Your task to perform on an android device: Search for apple airpods pro on ebay, select the first entry, add it to the cart, then select checkout. Image 0: 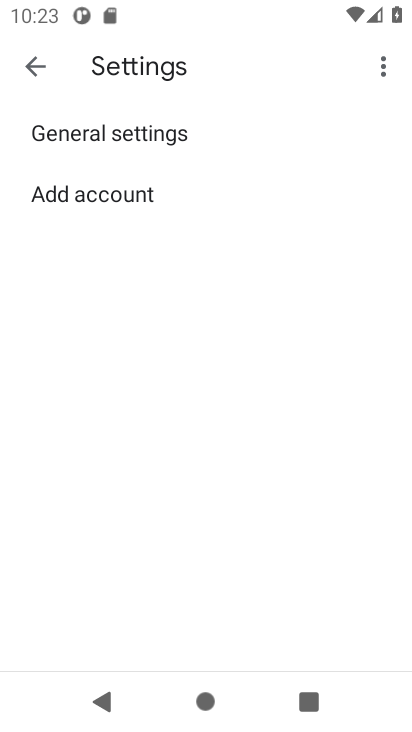
Step 0: press home button
Your task to perform on an android device: Search for apple airpods pro on ebay, select the first entry, add it to the cart, then select checkout. Image 1: 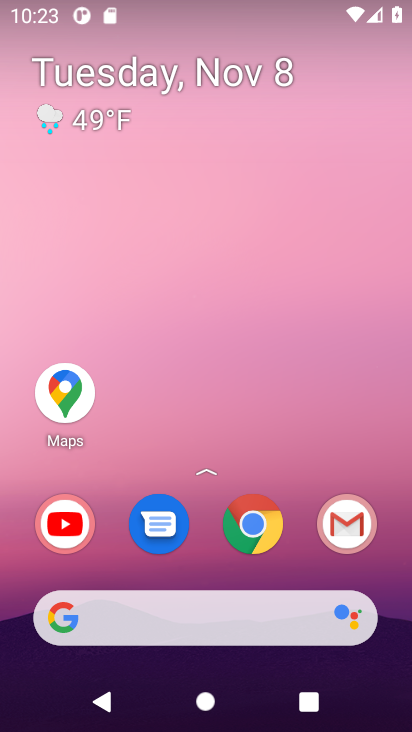
Step 1: click (246, 536)
Your task to perform on an android device: Search for apple airpods pro on ebay, select the first entry, add it to the cart, then select checkout. Image 2: 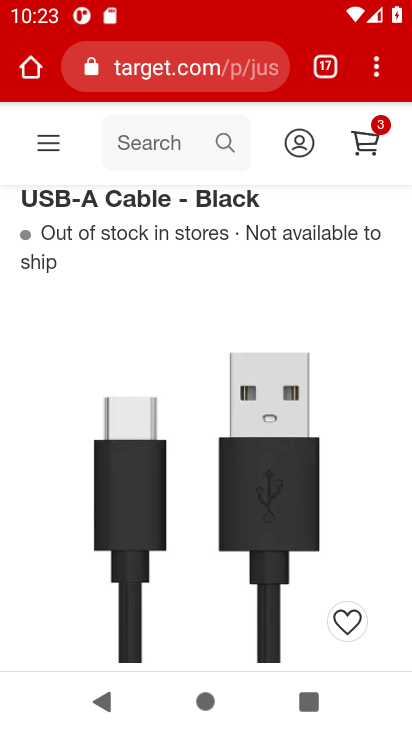
Step 2: click (233, 63)
Your task to perform on an android device: Search for apple airpods pro on ebay, select the first entry, add it to the cart, then select checkout. Image 3: 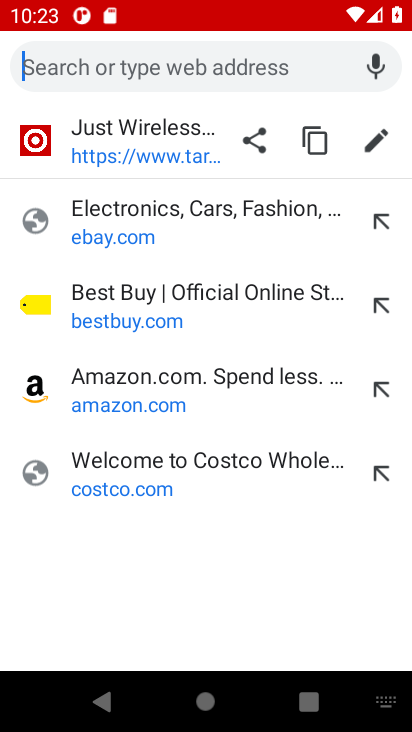
Step 3: click (112, 231)
Your task to perform on an android device: Search for apple airpods pro on ebay, select the first entry, add it to the cart, then select checkout. Image 4: 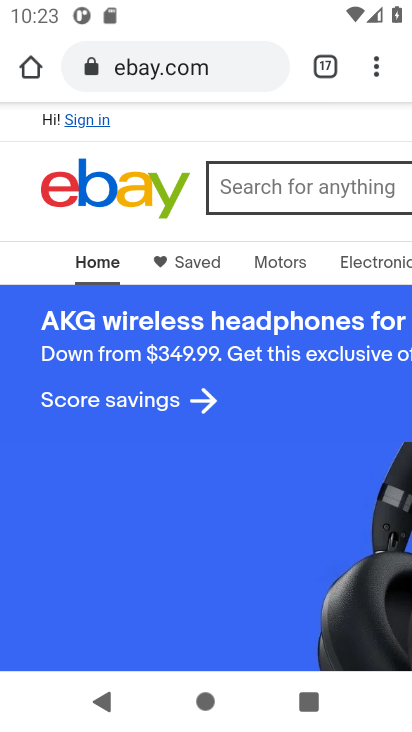
Step 4: click (271, 197)
Your task to perform on an android device: Search for apple airpods pro on ebay, select the first entry, add it to the cart, then select checkout. Image 5: 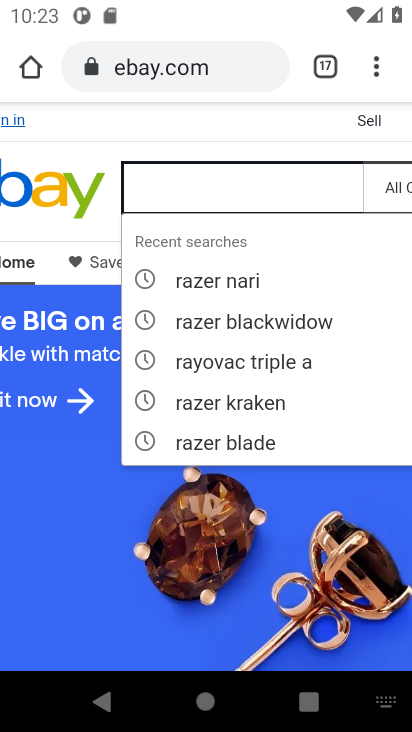
Step 5: type "apple airpods pro"
Your task to perform on an android device: Search for apple airpods pro on ebay, select the first entry, add it to the cart, then select checkout. Image 6: 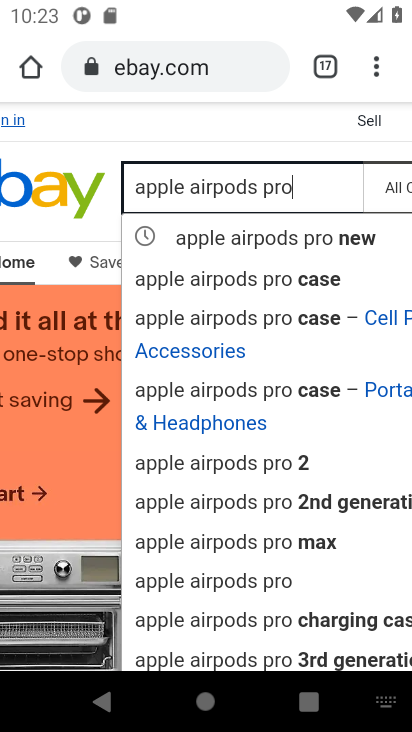
Step 6: click (277, 247)
Your task to perform on an android device: Search for apple airpods pro on ebay, select the first entry, add it to the cart, then select checkout. Image 7: 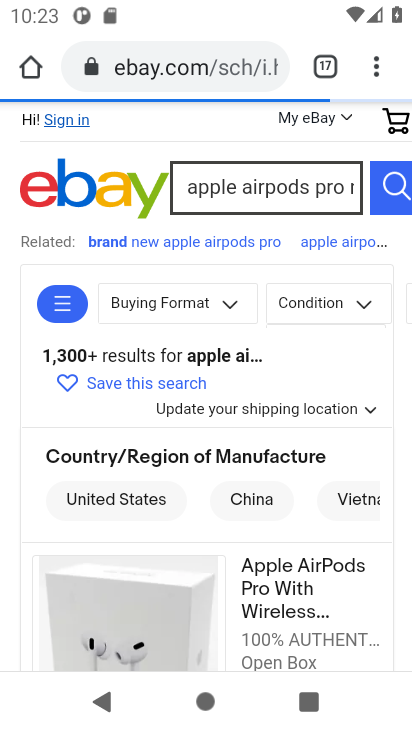
Step 7: drag from (153, 625) to (151, 413)
Your task to perform on an android device: Search for apple airpods pro on ebay, select the first entry, add it to the cart, then select checkout. Image 8: 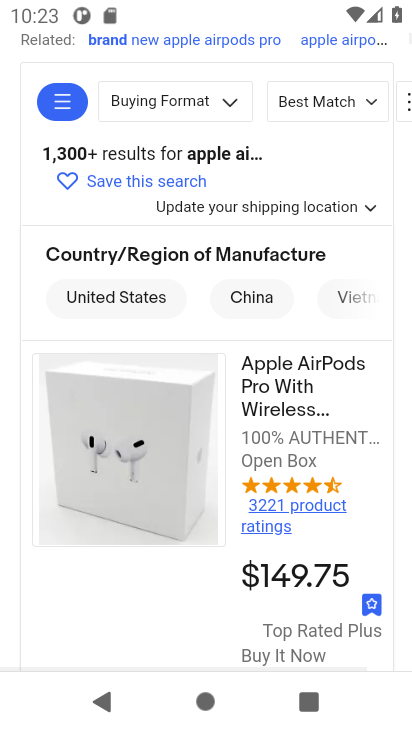
Step 8: click (147, 459)
Your task to perform on an android device: Search for apple airpods pro on ebay, select the first entry, add it to the cart, then select checkout. Image 9: 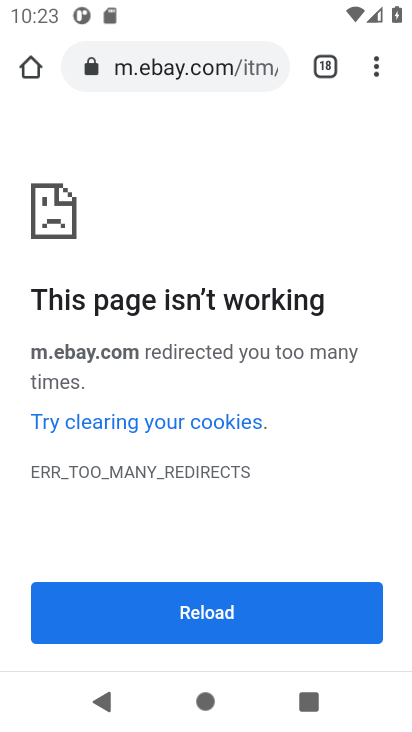
Step 9: task complete